Your task to perform on an android device: Go to CNN.com Image 0: 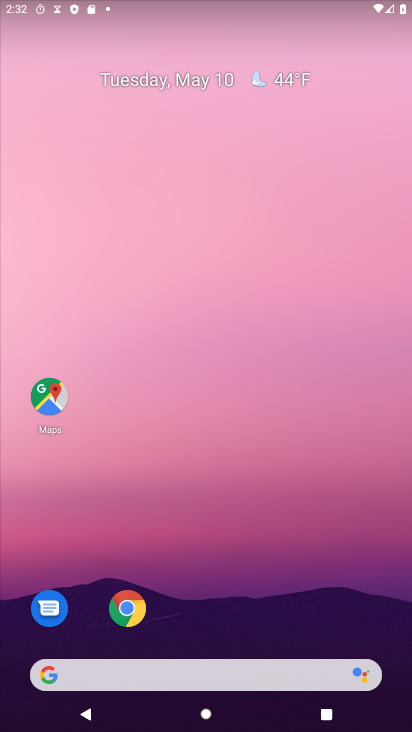
Step 0: click (128, 607)
Your task to perform on an android device: Go to CNN.com Image 1: 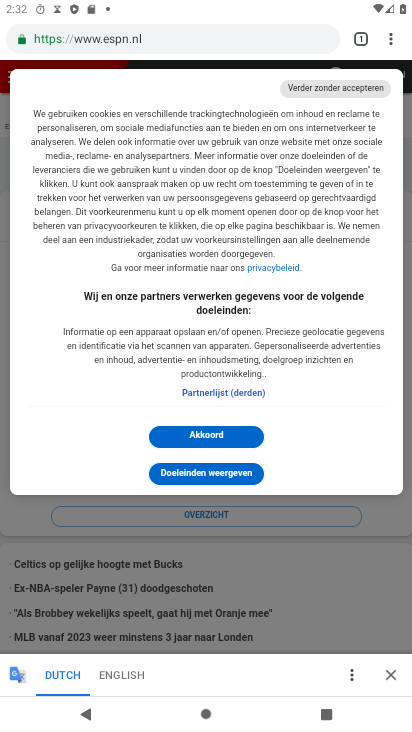
Step 1: click (110, 38)
Your task to perform on an android device: Go to CNN.com Image 2: 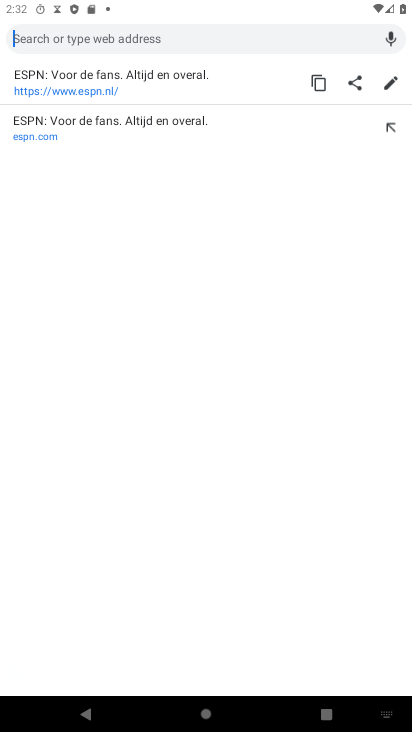
Step 2: type "cnn.com"
Your task to perform on an android device: Go to CNN.com Image 3: 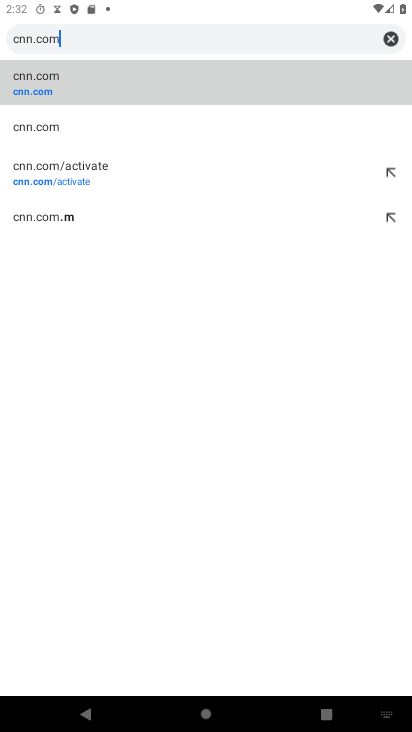
Step 3: click (59, 84)
Your task to perform on an android device: Go to CNN.com Image 4: 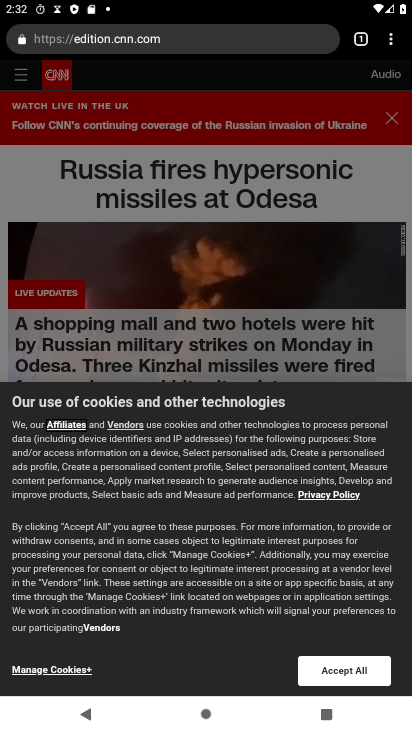
Step 4: task complete